Your task to perform on an android device: What's the weather going to be tomorrow? Image 0: 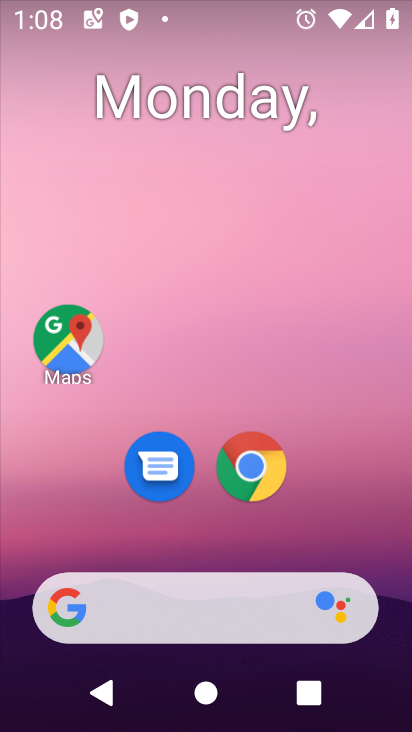
Step 0: drag from (395, 615) to (326, 50)
Your task to perform on an android device: What's the weather going to be tomorrow? Image 1: 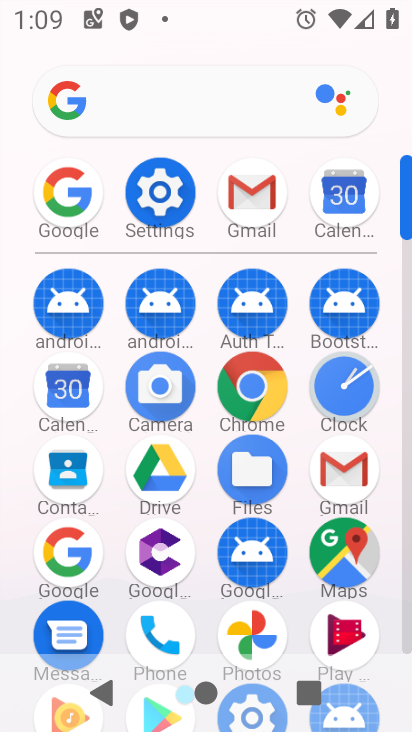
Step 1: click (79, 560)
Your task to perform on an android device: What's the weather going to be tomorrow? Image 2: 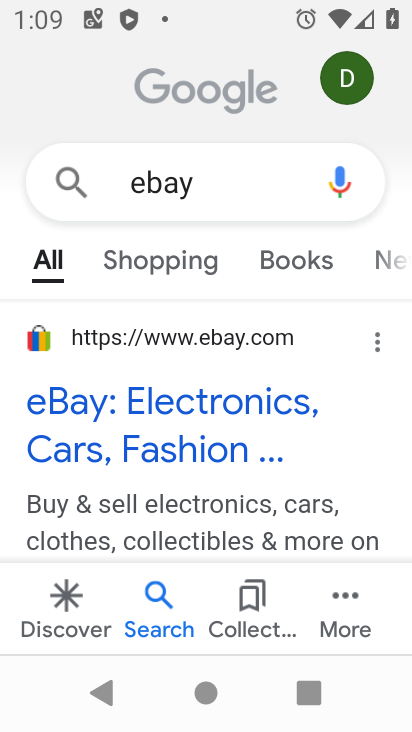
Step 2: press back button
Your task to perform on an android device: What's the weather going to be tomorrow? Image 3: 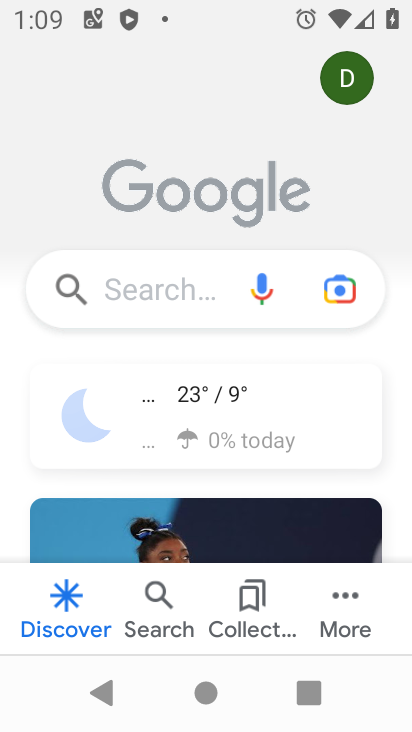
Step 3: click (144, 281)
Your task to perform on an android device: What's the weather going to be tomorrow? Image 4: 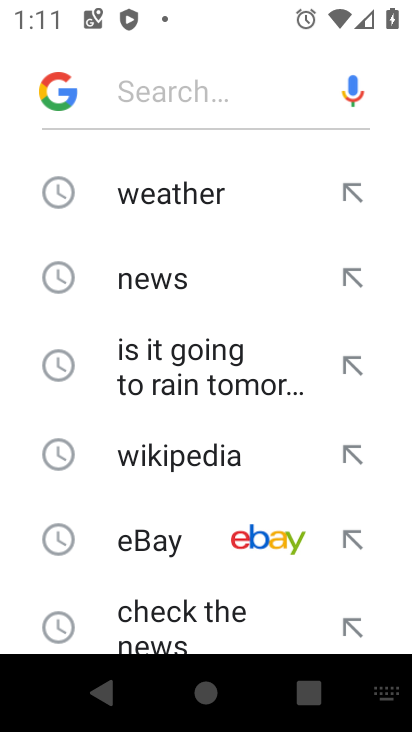
Step 4: drag from (164, 575) to (351, 3)
Your task to perform on an android device: What's the weather going to be tomorrow? Image 5: 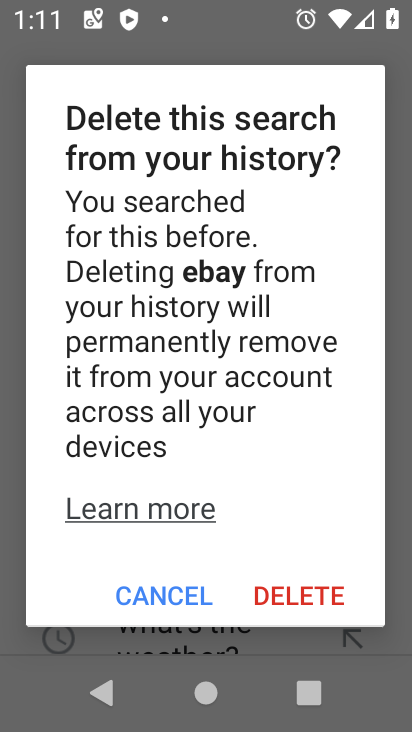
Step 5: click (190, 583)
Your task to perform on an android device: What's the weather going to be tomorrow? Image 6: 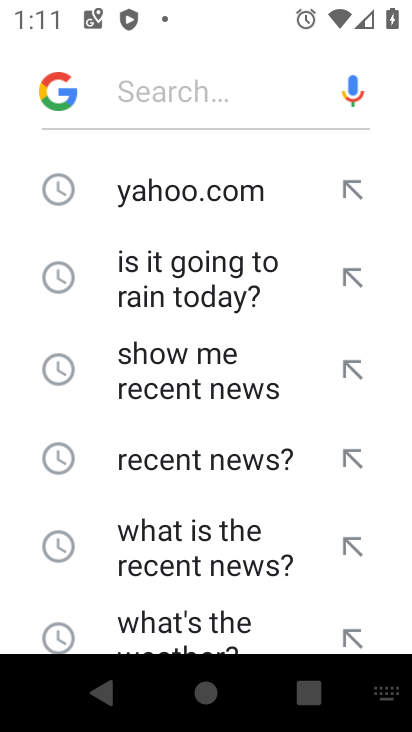
Step 6: drag from (140, 585) to (192, 45)
Your task to perform on an android device: What's the weather going to be tomorrow? Image 7: 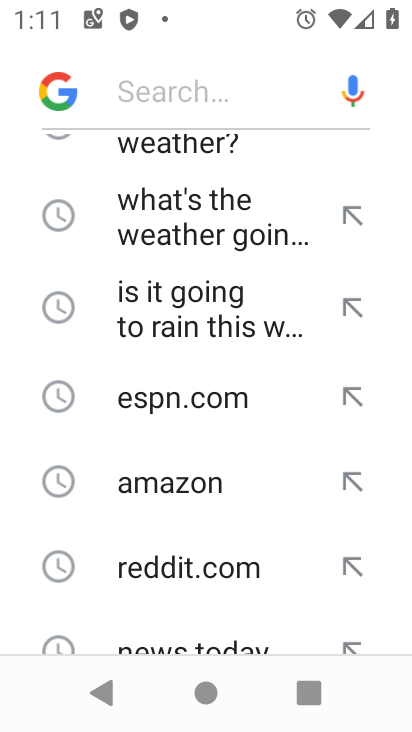
Step 7: drag from (186, 610) to (280, 141)
Your task to perform on an android device: What's the weather going to be tomorrow? Image 8: 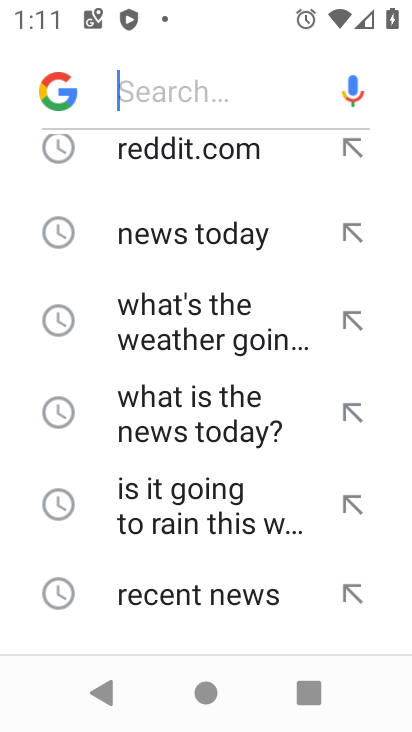
Step 8: click (179, 323)
Your task to perform on an android device: What's the weather going to be tomorrow? Image 9: 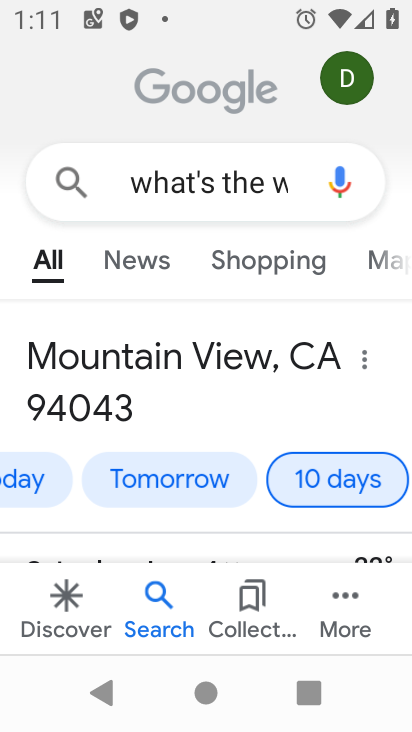
Step 9: task complete